Your task to perform on an android device: Show the shopping cart on costco.com. Search for "razer blade" on costco.com, select the first entry, and add it to the cart. Image 0: 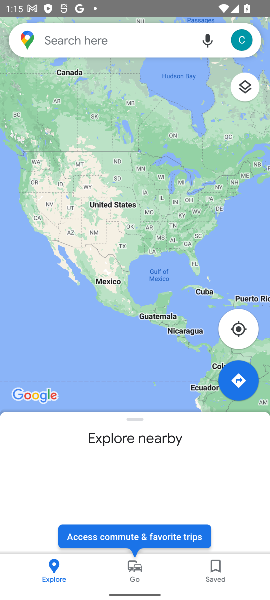
Step 0: press home button
Your task to perform on an android device: Show the shopping cart on costco.com. Search for "razer blade" on costco.com, select the first entry, and add it to the cart. Image 1: 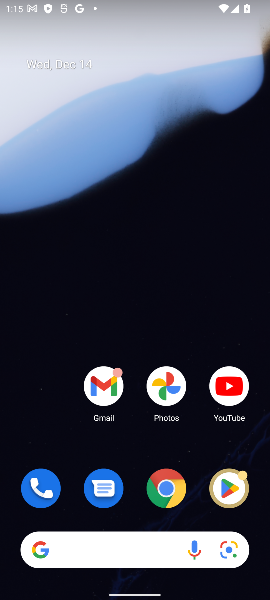
Step 1: drag from (134, 538) to (105, 27)
Your task to perform on an android device: Show the shopping cart on costco.com. Search for "razer blade" on costco.com, select the first entry, and add it to the cart. Image 2: 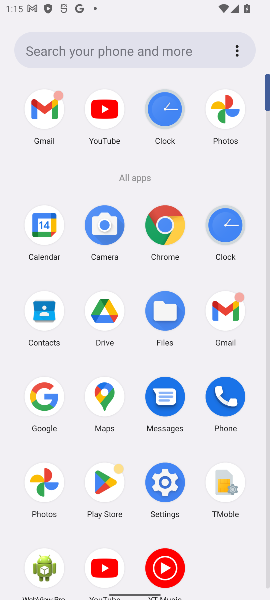
Step 2: click (43, 407)
Your task to perform on an android device: Show the shopping cart on costco.com. Search for "razer blade" on costco.com, select the first entry, and add it to the cart. Image 3: 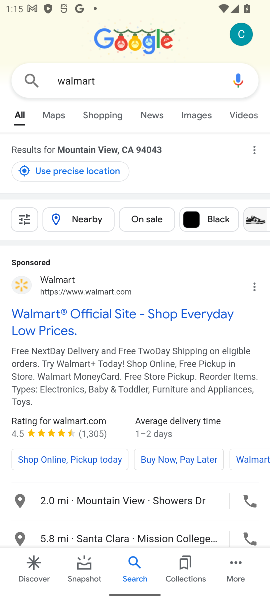
Step 3: click (88, 70)
Your task to perform on an android device: Show the shopping cart on costco.com. Search for "razer blade" on costco.com, select the first entry, and add it to the cart. Image 4: 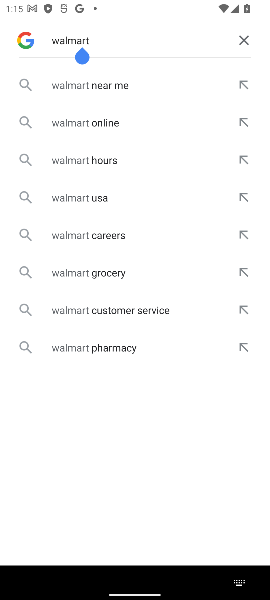
Step 4: click (247, 42)
Your task to perform on an android device: Show the shopping cart on costco.com. Search for "razer blade" on costco.com, select the first entry, and add it to the cart. Image 5: 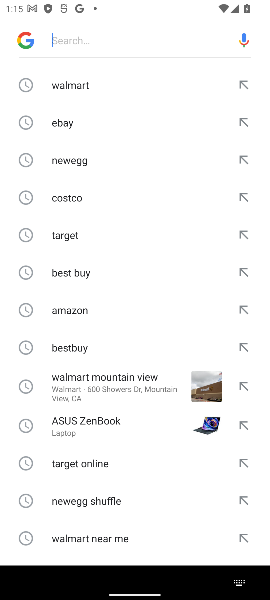
Step 5: click (75, 201)
Your task to perform on an android device: Show the shopping cart on costco.com. Search for "razer blade" on costco.com, select the first entry, and add it to the cart. Image 6: 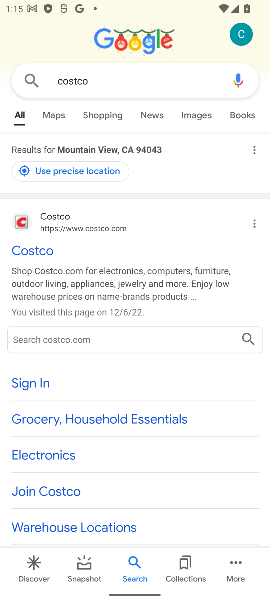
Step 6: click (36, 258)
Your task to perform on an android device: Show the shopping cart on costco.com. Search for "razer blade" on costco.com, select the first entry, and add it to the cart. Image 7: 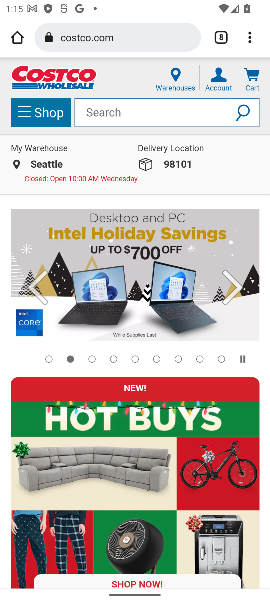
Step 7: click (103, 114)
Your task to perform on an android device: Show the shopping cart on costco.com. Search for "razer blade" on costco.com, select the first entry, and add it to the cart. Image 8: 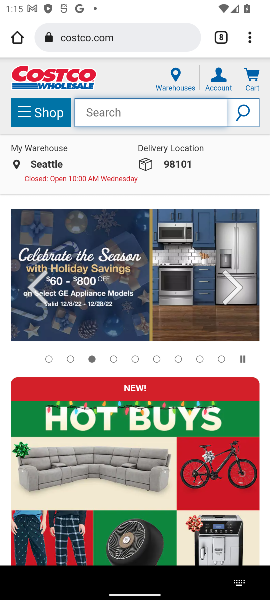
Step 8: type "razer blade"
Your task to perform on an android device: Show the shopping cart on costco.com. Search for "razer blade" on costco.com, select the first entry, and add it to the cart. Image 9: 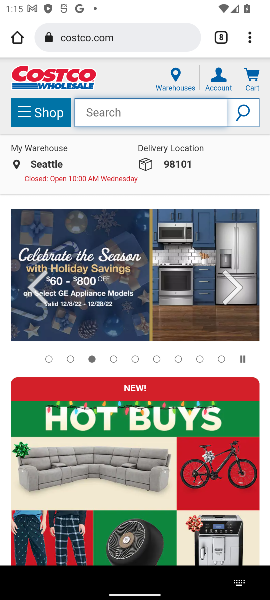
Step 9: click (232, 108)
Your task to perform on an android device: Show the shopping cart on costco.com. Search for "razer blade" on costco.com, select the first entry, and add it to the cart. Image 10: 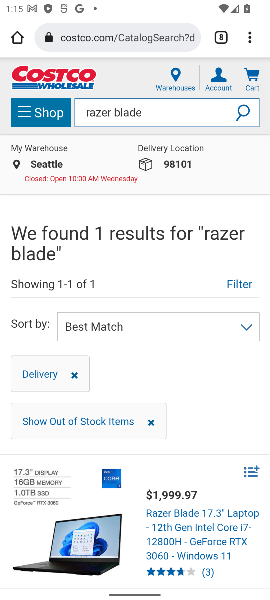
Step 10: drag from (198, 485) to (174, 182)
Your task to perform on an android device: Show the shopping cart on costco.com. Search for "razer blade" on costco.com, select the first entry, and add it to the cart. Image 11: 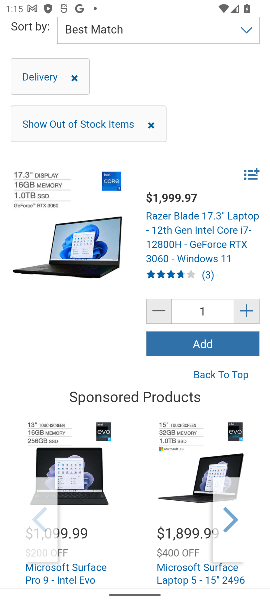
Step 11: click (209, 348)
Your task to perform on an android device: Show the shopping cart on costco.com. Search for "razer blade" on costco.com, select the first entry, and add it to the cart. Image 12: 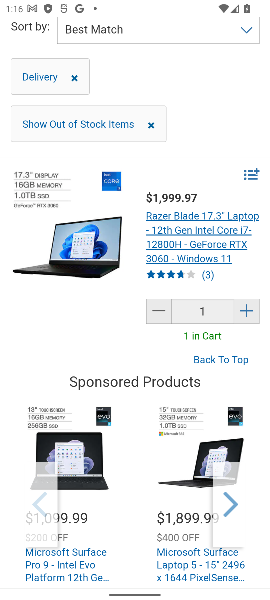
Step 12: drag from (204, 89) to (205, 413)
Your task to perform on an android device: Show the shopping cart on costco.com. Search for "razer blade" on costco.com, select the first entry, and add it to the cart. Image 13: 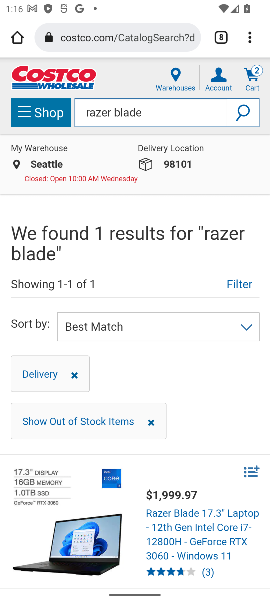
Step 13: click (249, 77)
Your task to perform on an android device: Show the shopping cart on costco.com. Search for "razer blade" on costco.com, select the first entry, and add it to the cart. Image 14: 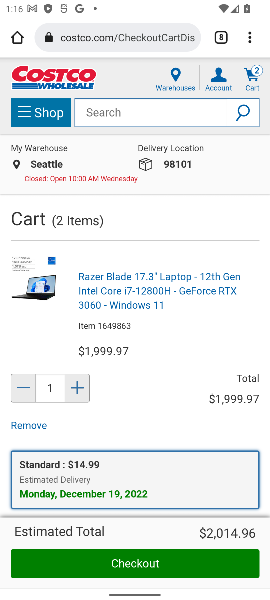
Step 14: click (146, 562)
Your task to perform on an android device: Show the shopping cart on costco.com. Search for "razer blade" on costco.com, select the first entry, and add it to the cart. Image 15: 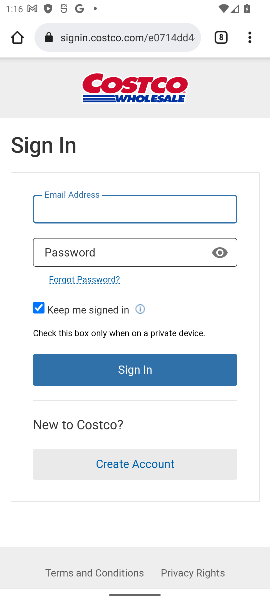
Step 15: task complete